Your task to perform on an android device: Open the phone app and click the voicemail tab. Image 0: 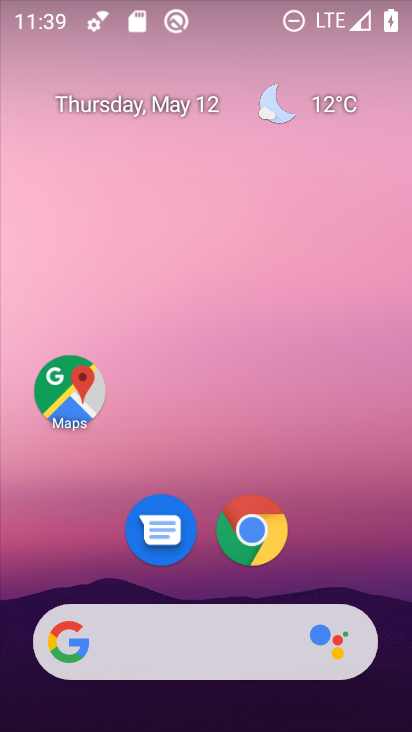
Step 0: drag from (190, 640) to (267, 137)
Your task to perform on an android device: Open the phone app and click the voicemail tab. Image 1: 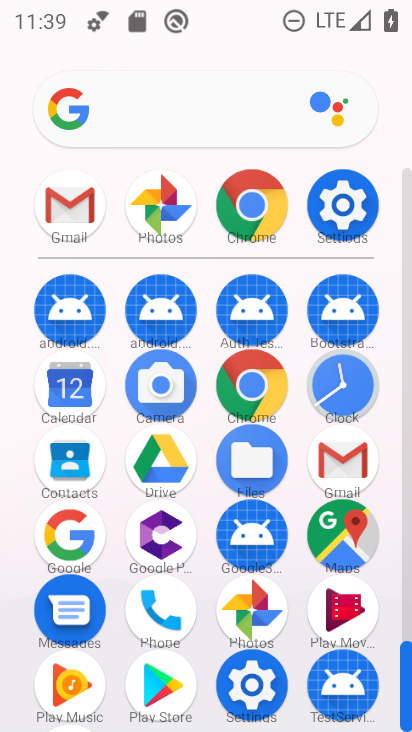
Step 1: click (150, 621)
Your task to perform on an android device: Open the phone app and click the voicemail tab. Image 2: 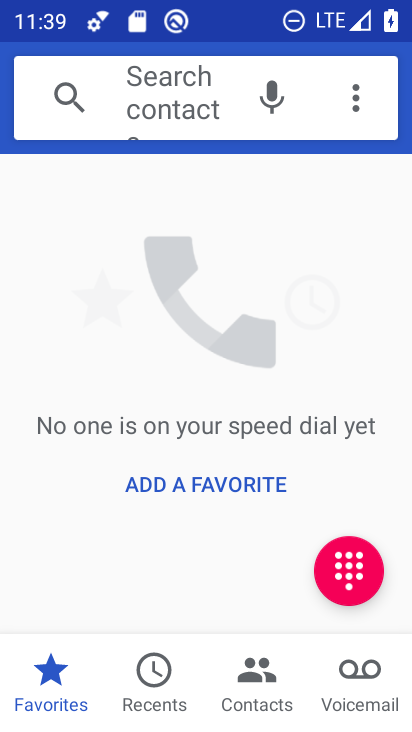
Step 2: click (351, 683)
Your task to perform on an android device: Open the phone app and click the voicemail tab. Image 3: 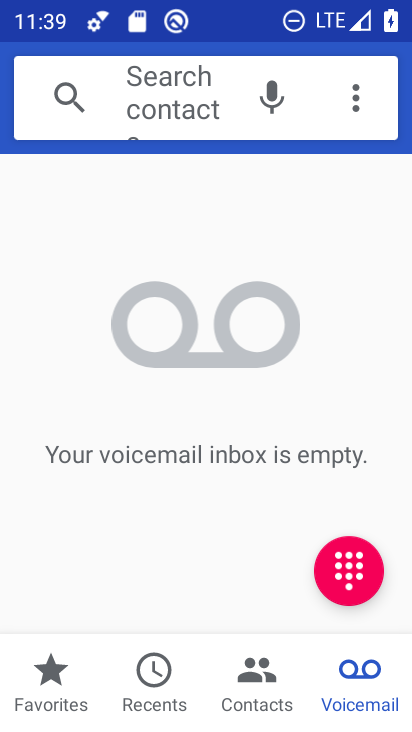
Step 3: task complete